Your task to perform on an android device: Go to wifi settings Image 0: 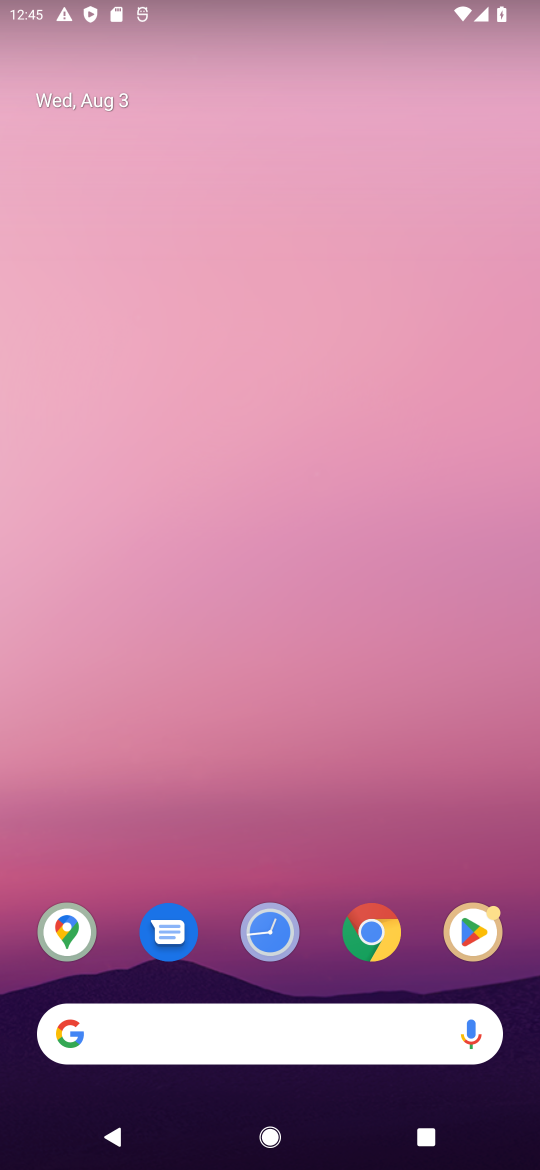
Step 0: drag from (193, 1042) to (311, 12)
Your task to perform on an android device: Go to wifi settings Image 1: 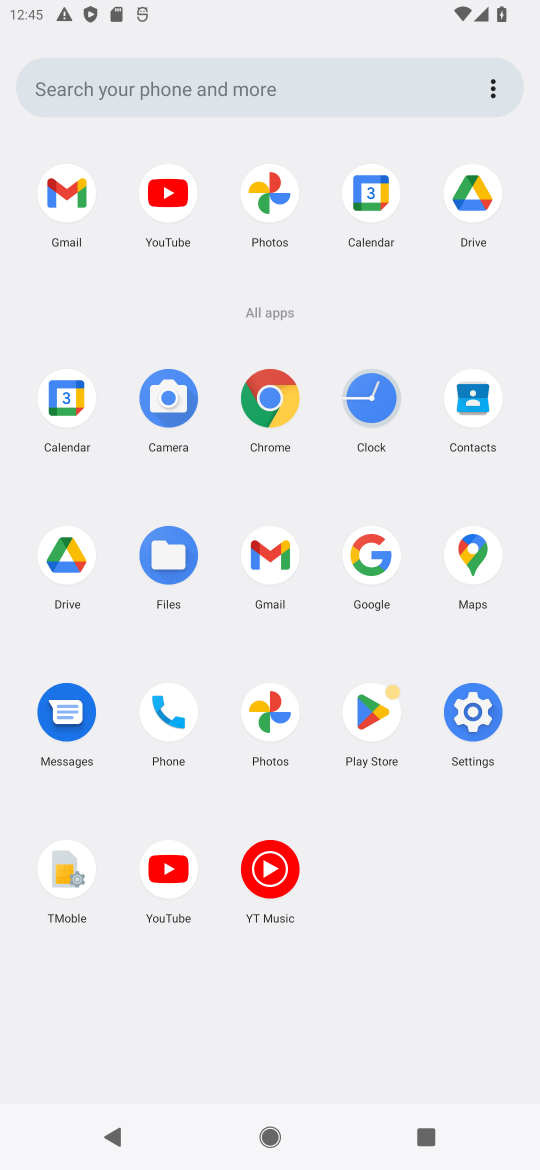
Step 1: click (498, 701)
Your task to perform on an android device: Go to wifi settings Image 2: 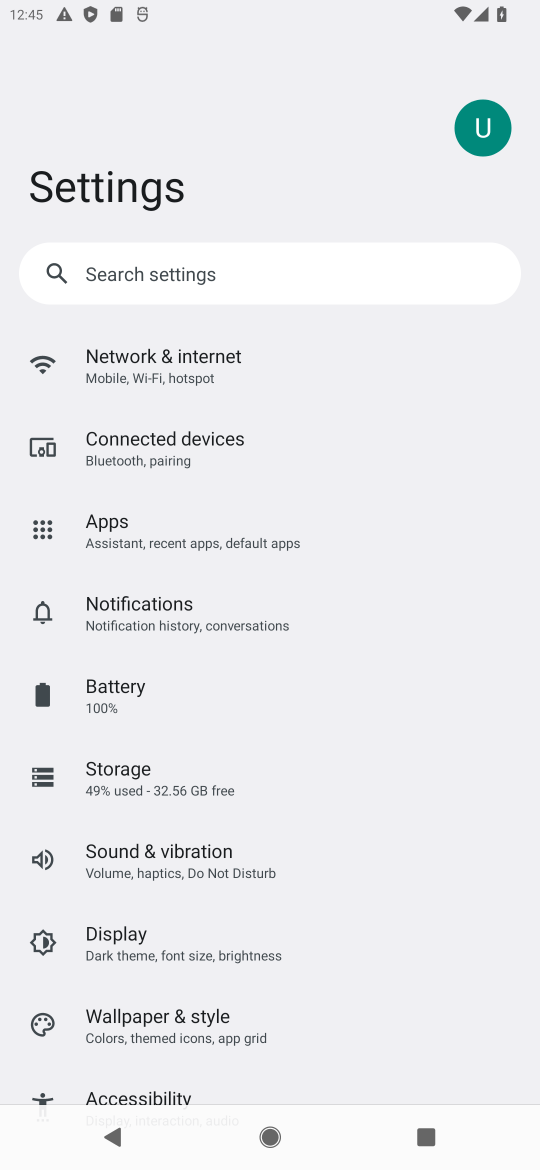
Step 2: click (211, 352)
Your task to perform on an android device: Go to wifi settings Image 3: 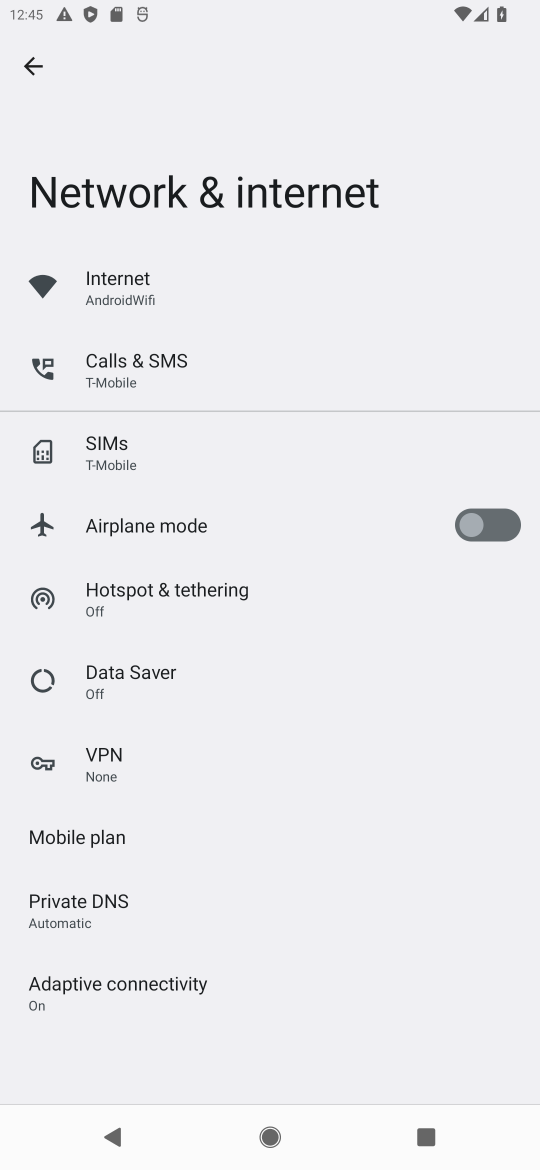
Step 3: task complete